Your task to perform on an android device: snooze an email in the gmail app Image 0: 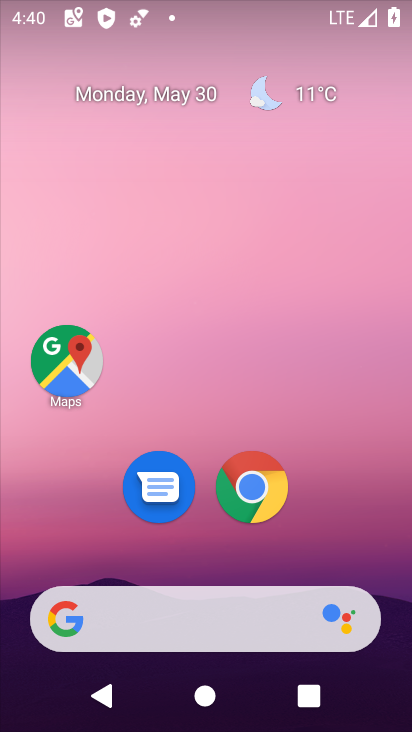
Step 0: drag from (393, 633) to (306, 83)
Your task to perform on an android device: snooze an email in the gmail app Image 1: 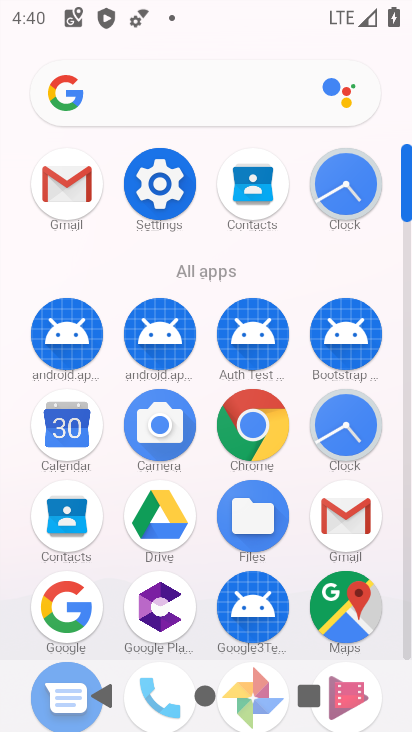
Step 1: click (345, 516)
Your task to perform on an android device: snooze an email in the gmail app Image 2: 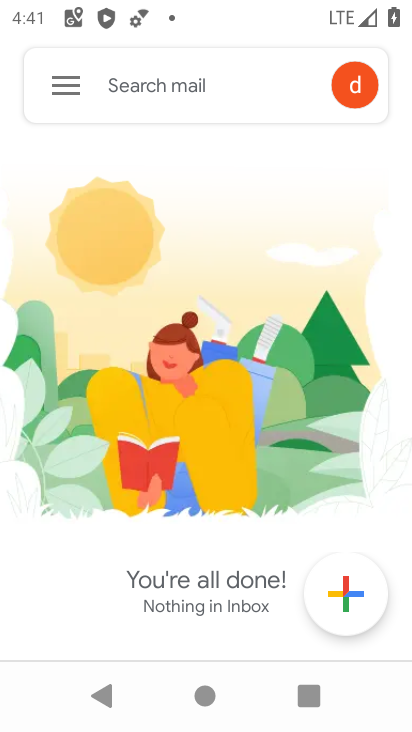
Step 2: click (59, 80)
Your task to perform on an android device: snooze an email in the gmail app Image 3: 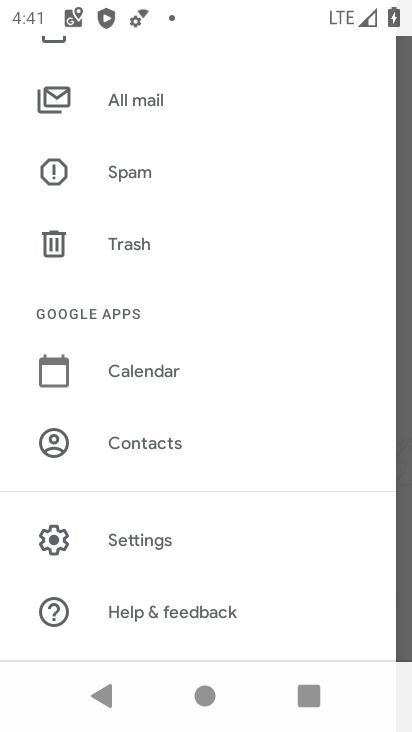
Step 3: click (137, 96)
Your task to perform on an android device: snooze an email in the gmail app Image 4: 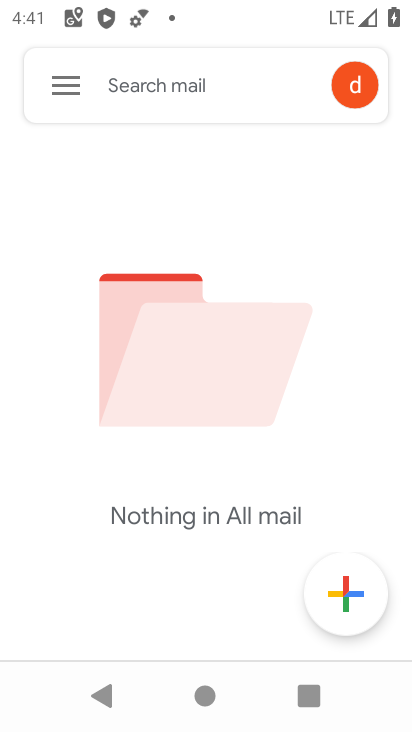
Step 4: click (71, 83)
Your task to perform on an android device: snooze an email in the gmail app Image 5: 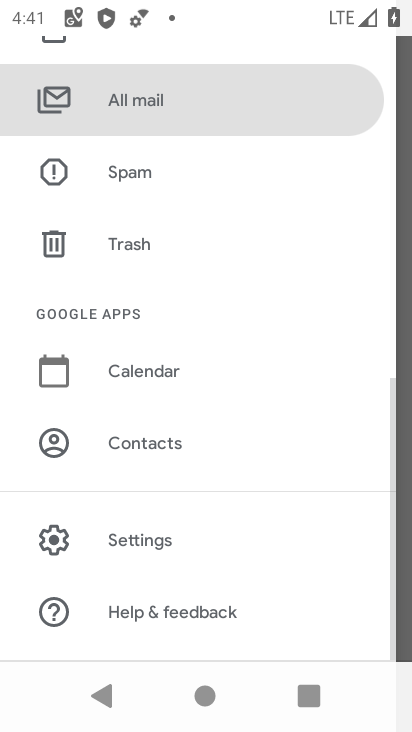
Step 5: click (126, 111)
Your task to perform on an android device: snooze an email in the gmail app Image 6: 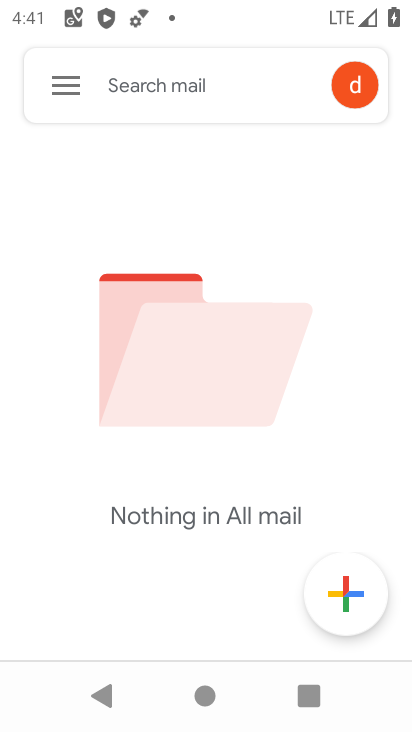
Step 6: task complete